Your task to perform on an android device: open device folders in google photos Image 0: 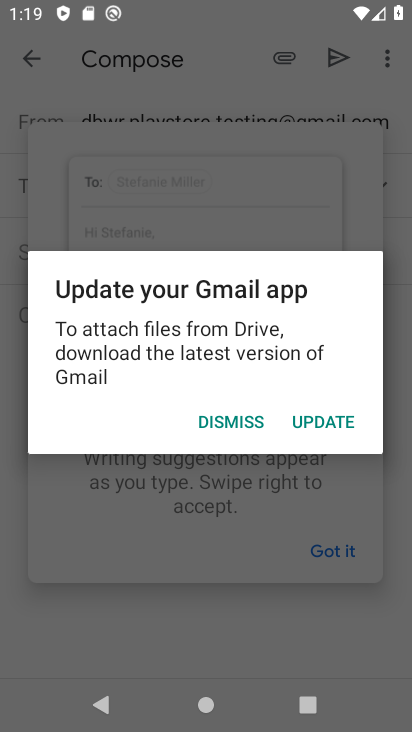
Step 0: press home button
Your task to perform on an android device: open device folders in google photos Image 1: 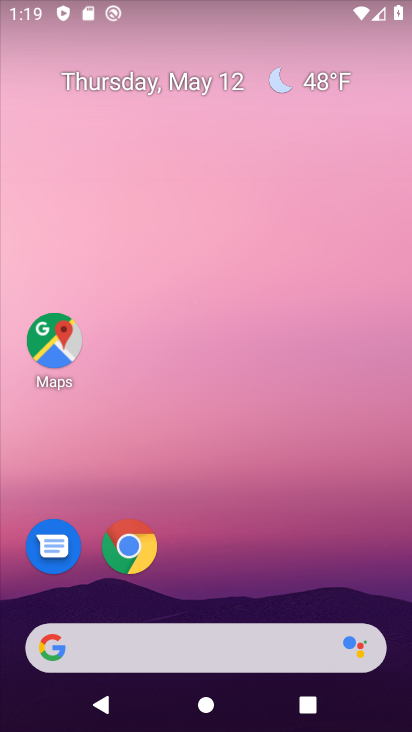
Step 1: drag from (265, 692) to (307, 364)
Your task to perform on an android device: open device folders in google photos Image 2: 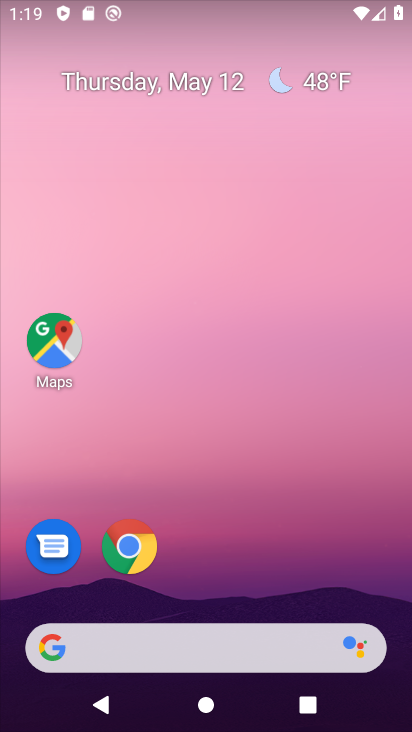
Step 2: drag from (245, 664) to (349, 78)
Your task to perform on an android device: open device folders in google photos Image 3: 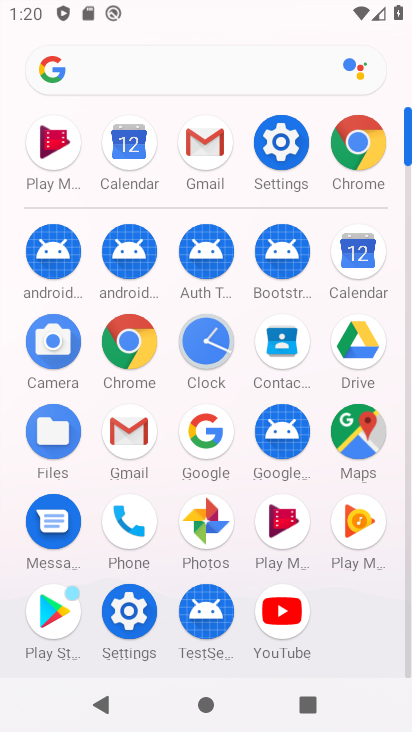
Step 3: click (204, 518)
Your task to perform on an android device: open device folders in google photos Image 4: 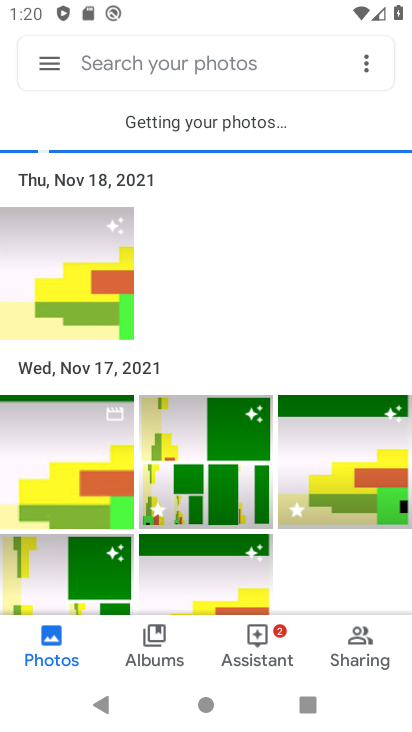
Step 4: click (56, 62)
Your task to perform on an android device: open device folders in google photos Image 5: 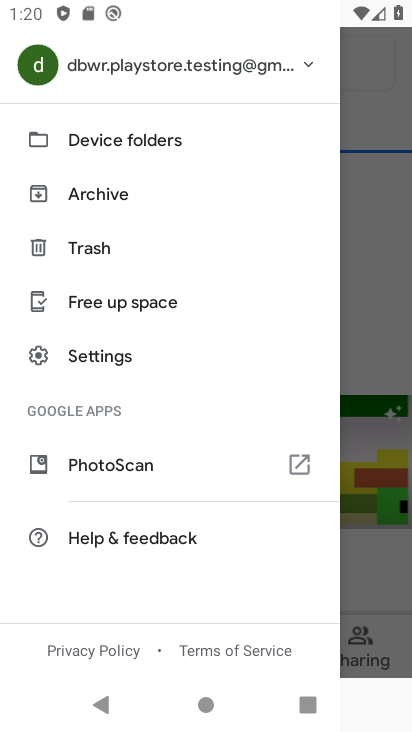
Step 5: click (148, 137)
Your task to perform on an android device: open device folders in google photos Image 6: 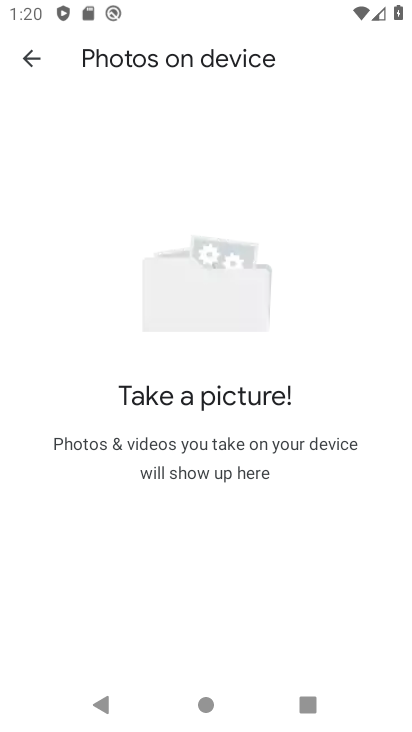
Step 6: task complete